Your task to perform on an android device: turn off sleep mode Image 0: 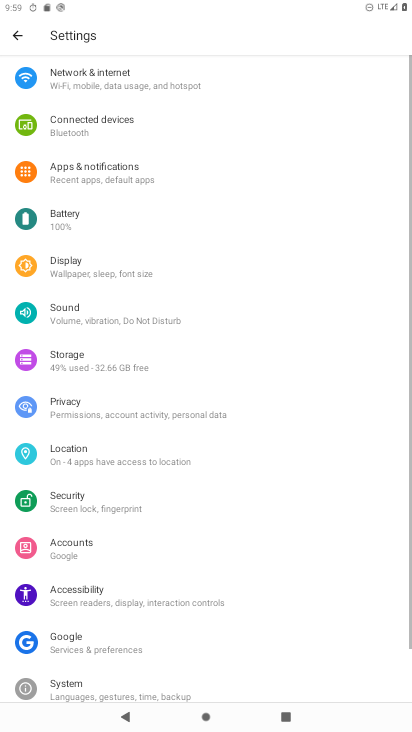
Step 0: task impossible